Your task to perform on an android device: Open Android settings Image 0: 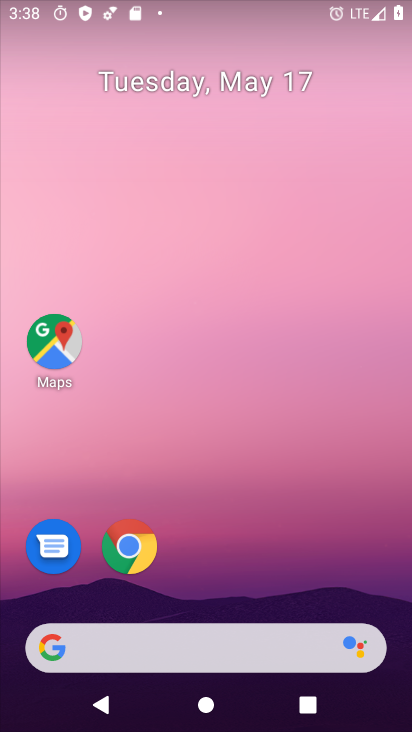
Step 0: press home button
Your task to perform on an android device: Open Android settings Image 1: 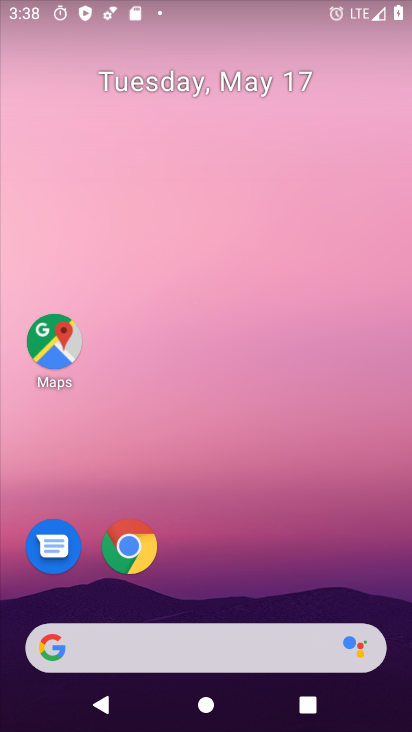
Step 1: drag from (301, 306) to (373, 117)
Your task to perform on an android device: Open Android settings Image 2: 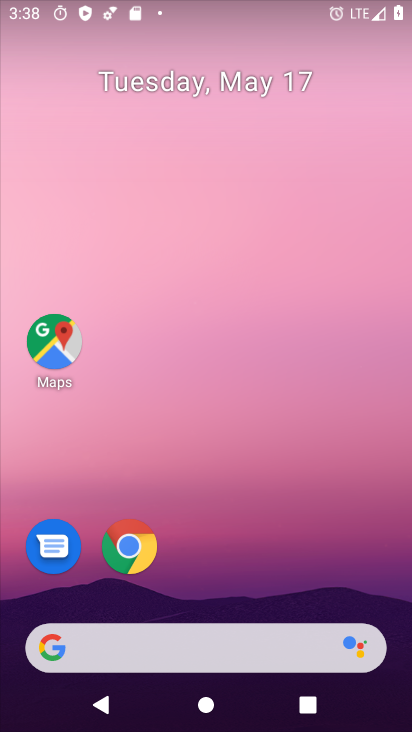
Step 2: drag from (233, 493) to (228, 49)
Your task to perform on an android device: Open Android settings Image 3: 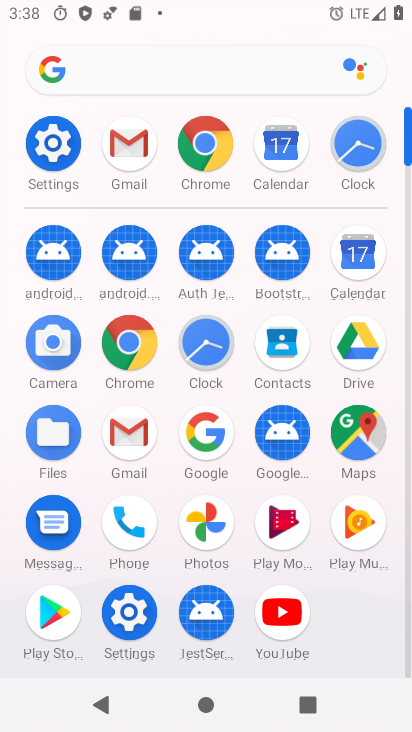
Step 3: click (135, 601)
Your task to perform on an android device: Open Android settings Image 4: 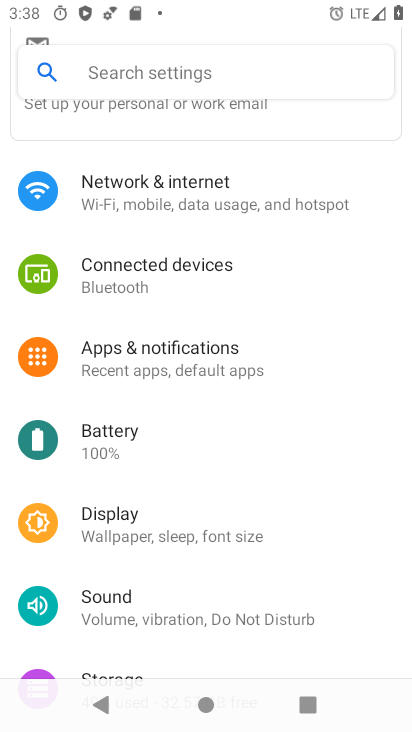
Step 4: drag from (214, 606) to (108, 211)
Your task to perform on an android device: Open Android settings Image 5: 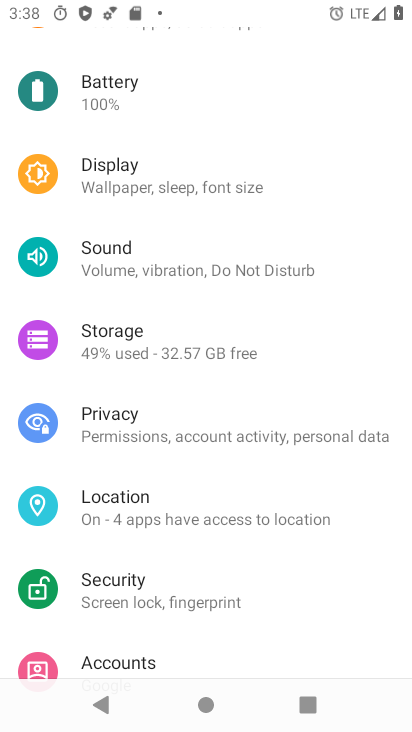
Step 5: drag from (146, 531) to (135, 178)
Your task to perform on an android device: Open Android settings Image 6: 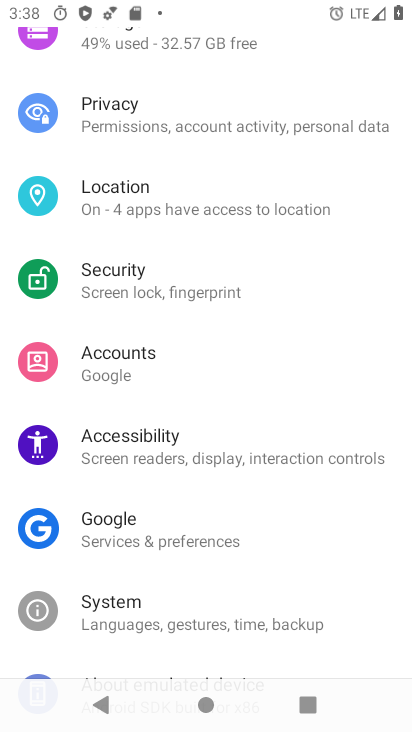
Step 6: drag from (182, 585) to (133, 159)
Your task to perform on an android device: Open Android settings Image 7: 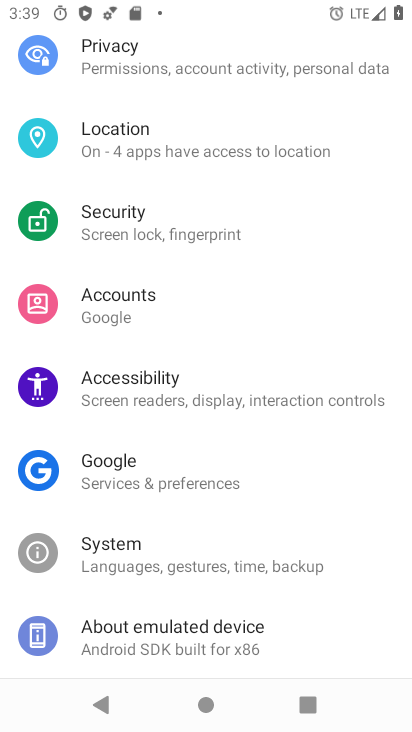
Step 7: click (164, 637)
Your task to perform on an android device: Open Android settings Image 8: 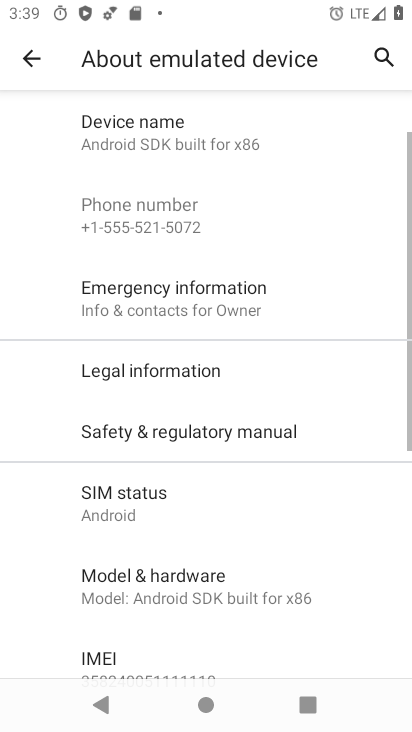
Step 8: drag from (137, 531) to (199, 155)
Your task to perform on an android device: Open Android settings Image 9: 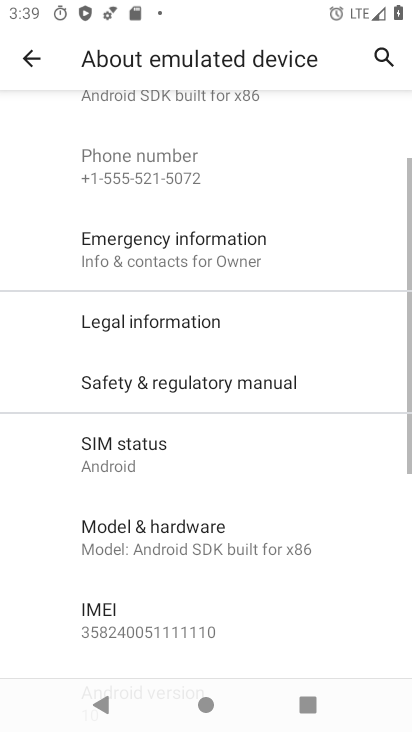
Step 9: drag from (137, 533) to (173, 298)
Your task to perform on an android device: Open Android settings Image 10: 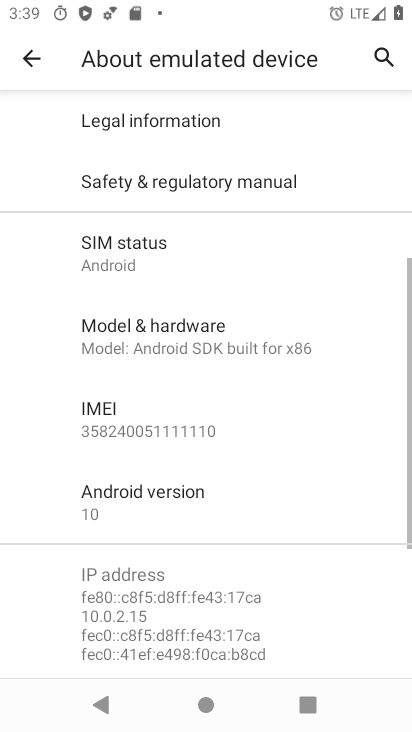
Step 10: click (198, 485)
Your task to perform on an android device: Open Android settings Image 11: 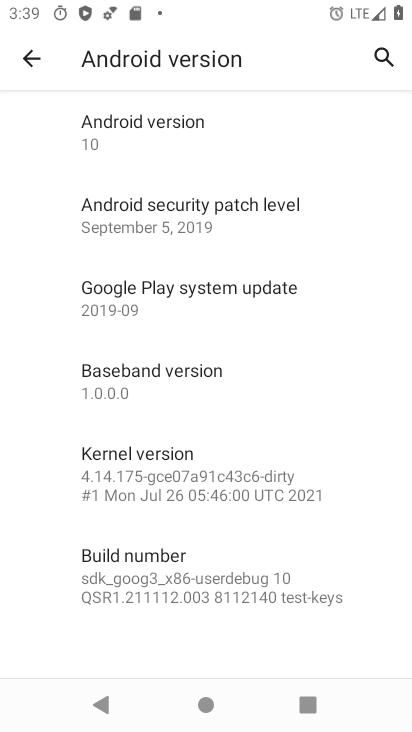
Step 11: task complete